Your task to perform on an android device: open a new tab in the chrome app Image 0: 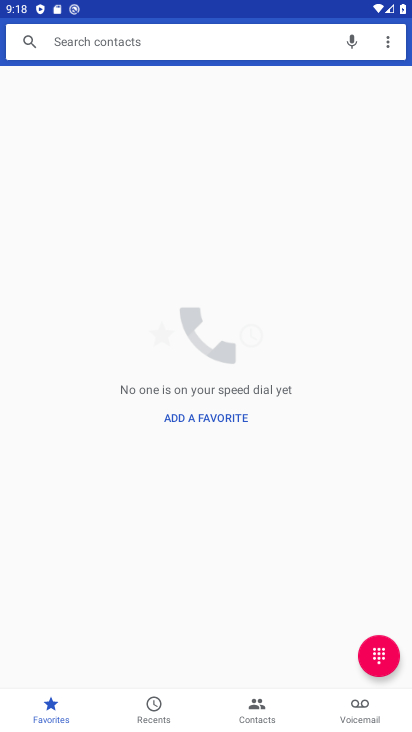
Step 0: press home button
Your task to perform on an android device: open a new tab in the chrome app Image 1: 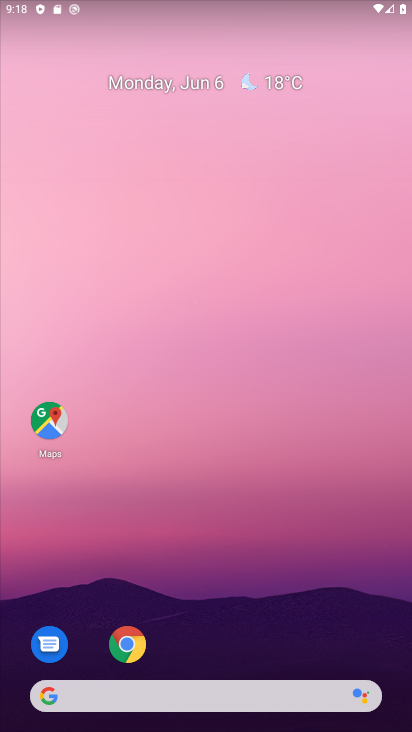
Step 1: drag from (298, 579) to (317, 135)
Your task to perform on an android device: open a new tab in the chrome app Image 2: 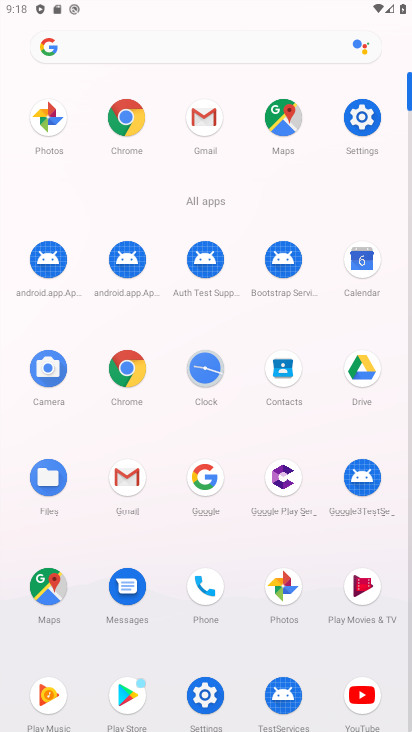
Step 2: click (131, 376)
Your task to perform on an android device: open a new tab in the chrome app Image 3: 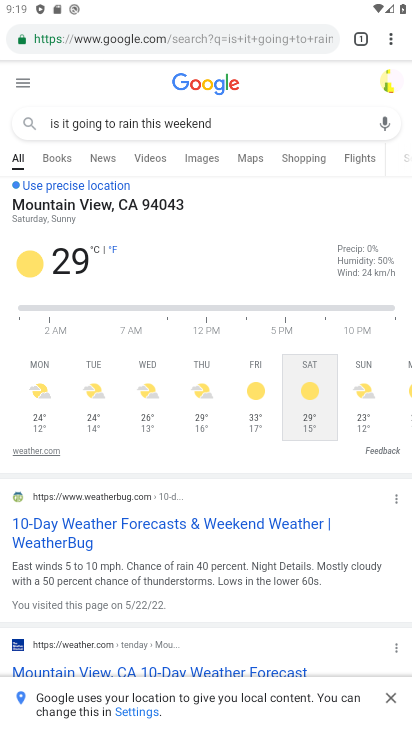
Step 3: click (364, 41)
Your task to perform on an android device: open a new tab in the chrome app Image 4: 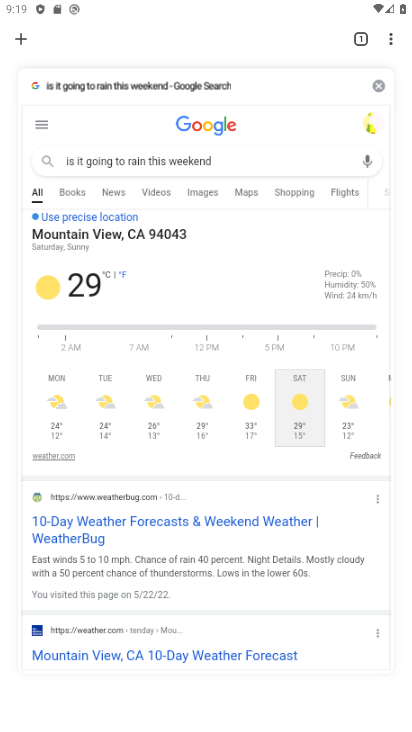
Step 4: click (22, 40)
Your task to perform on an android device: open a new tab in the chrome app Image 5: 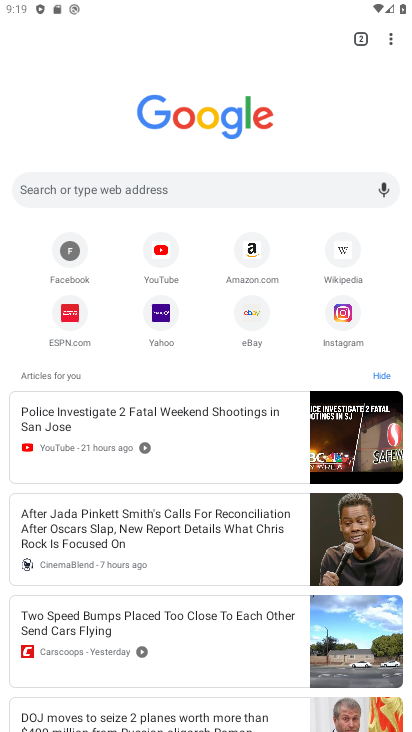
Step 5: task complete